Your task to perform on an android device: Search for Mexican restaurants on Maps Image 0: 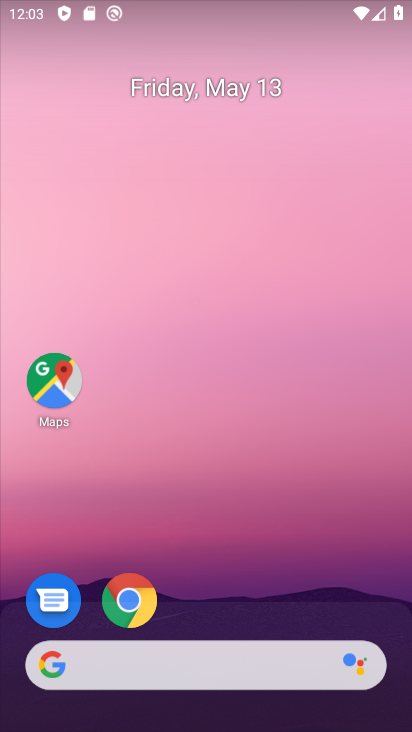
Step 0: click (53, 392)
Your task to perform on an android device: Search for Mexican restaurants on Maps Image 1: 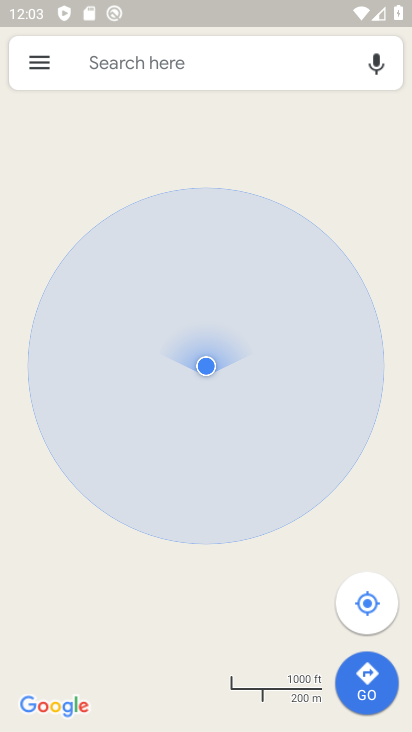
Step 1: click (151, 65)
Your task to perform on an android device: Search for Mexican restaurants on Maps Image 2: 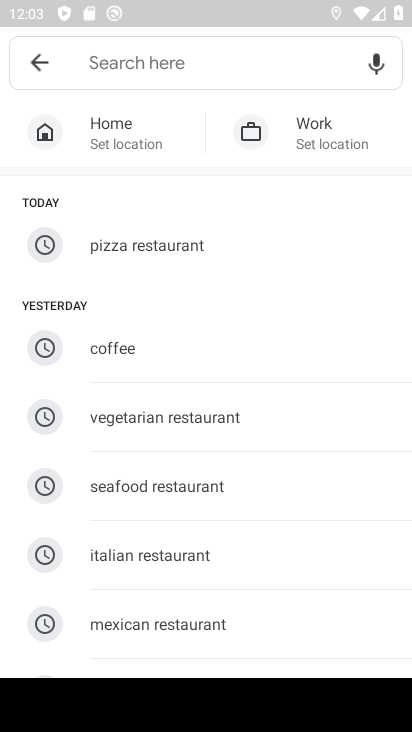
Step 2: type "mexican restaurant"
Your task to perform on an android device: Search for Mexican restaurants on Maps Image 3: 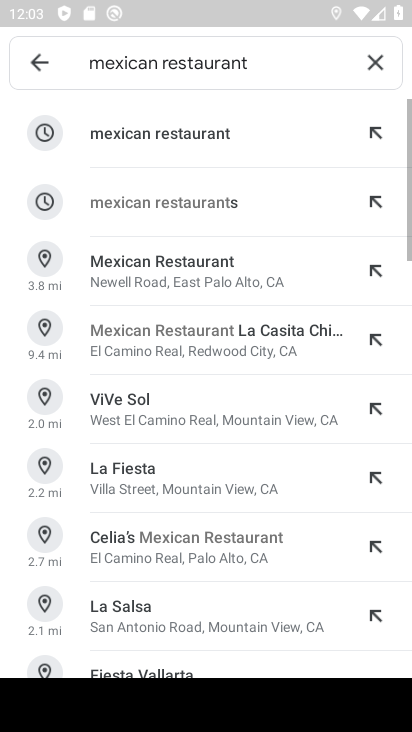
Step 3: click (179, 143)
Your task to perform on an android device: Search for Mexican restaurants on Maps Image 4: 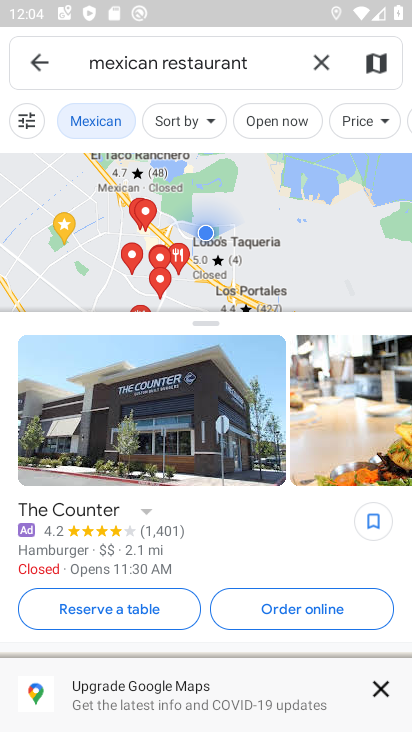
Step 4: task complete